Your task to perform on an android device: Go to Google Image 0: 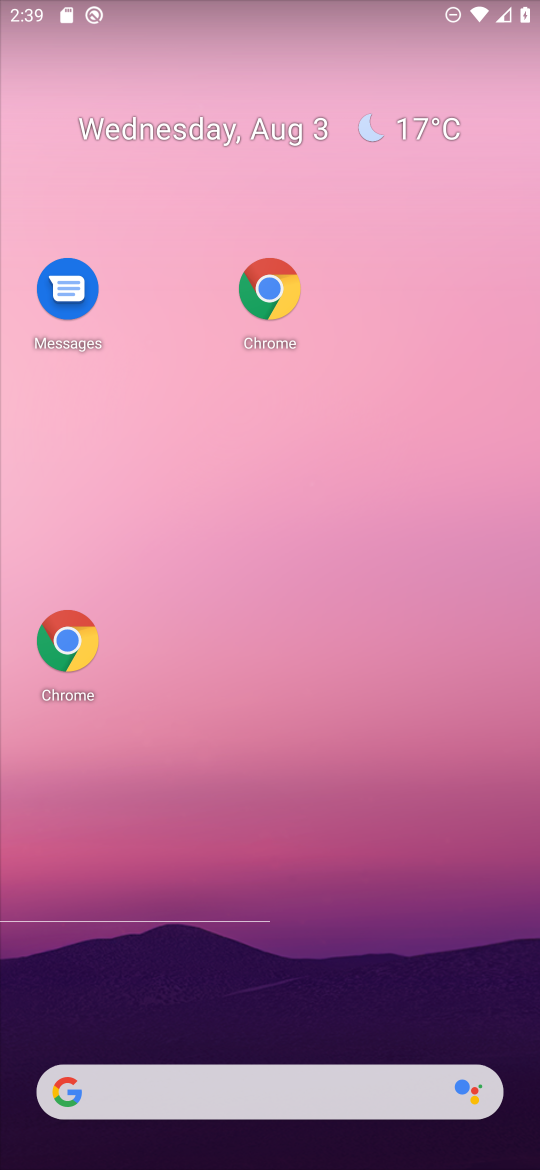
Step 0: drag from (252, 1004) to (312, 512)
Your task to perform on an android device: Go to Google Image 1: 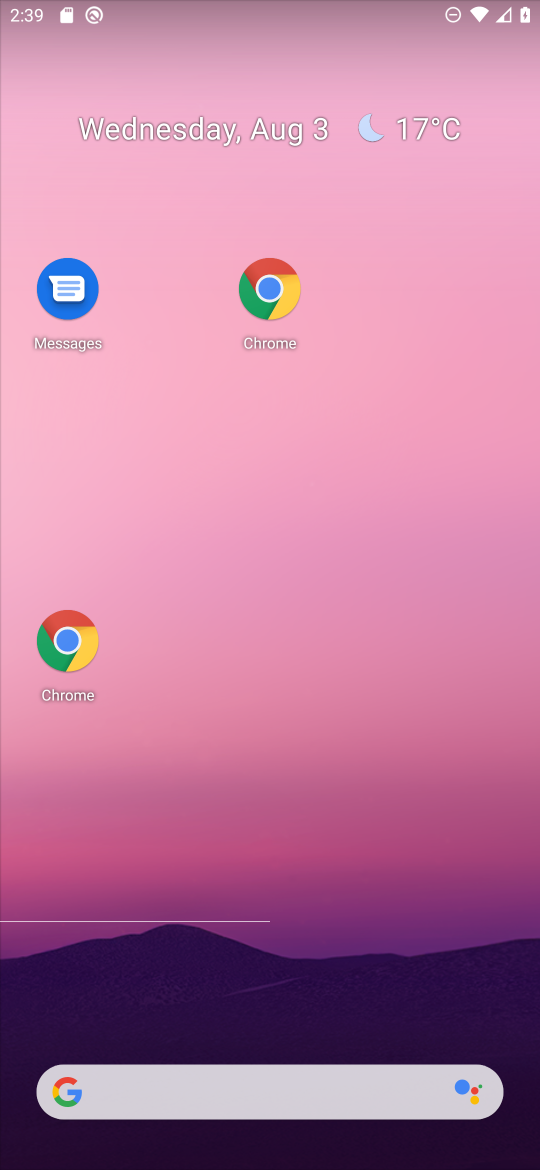
Step 1: click (266, 341)
Your task to perform on an android device: Go to Google Image 2: 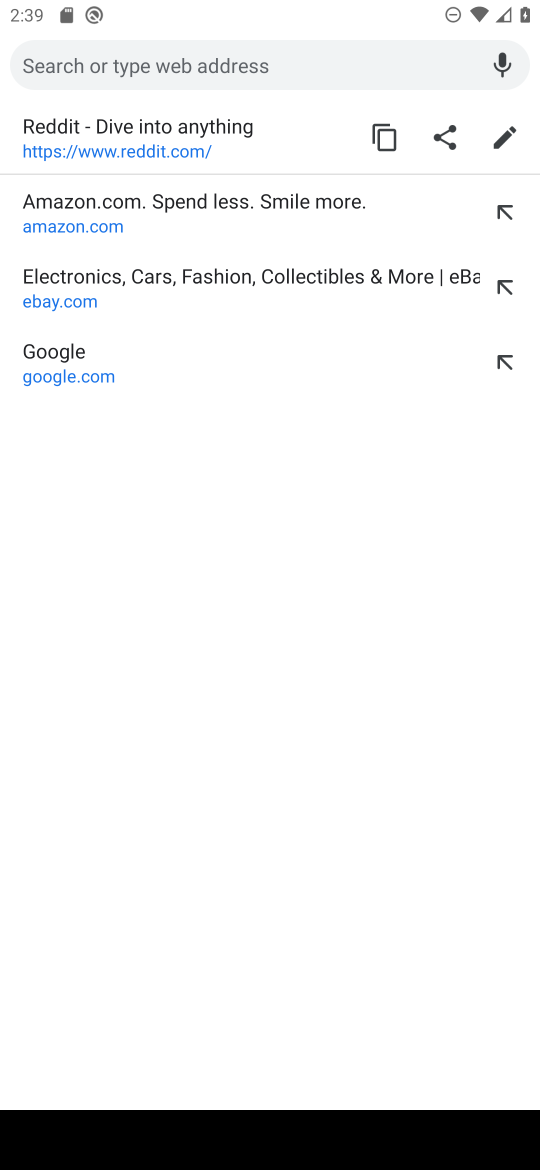
Step 2: click (205, 381)
Your task to perform on an android device: Go to Google Image 3: 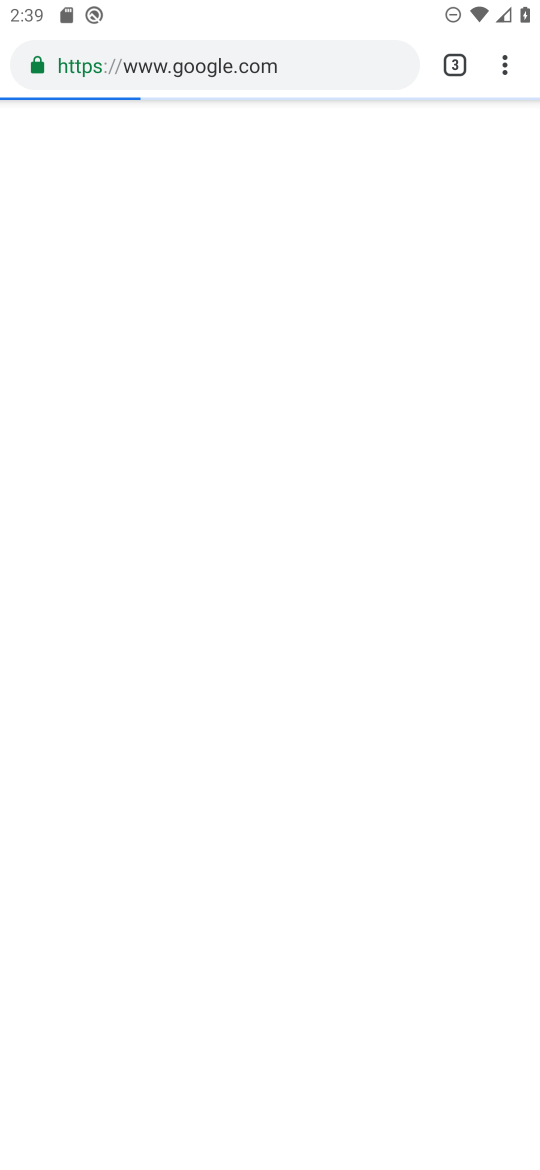
Step 3: task complete